Your task to perform on an android device: Go to location settings Image 0: 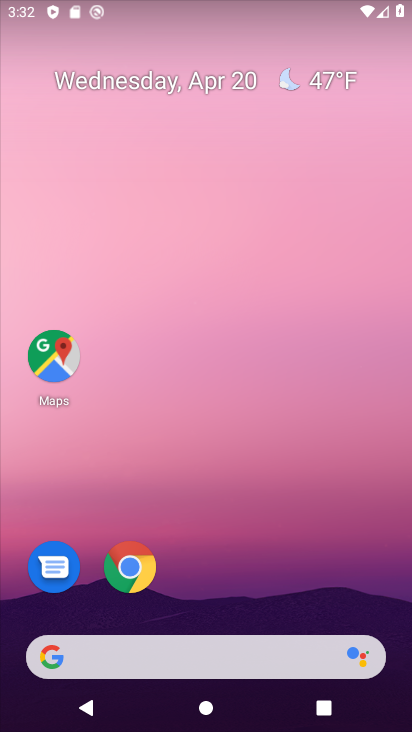
Step 0: drag from (275, 623) to (281, 1)
Your task to perform on an android device: Go to location settings Image 1: 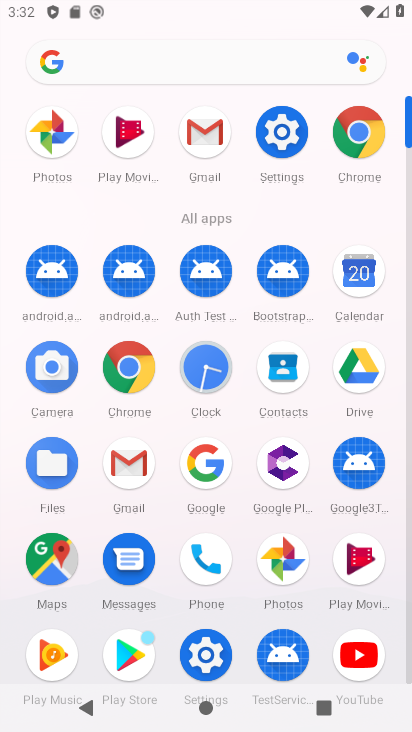
Step 1: click (300, 152)
Your task to perform on an android device: Go to location settings Image 2: 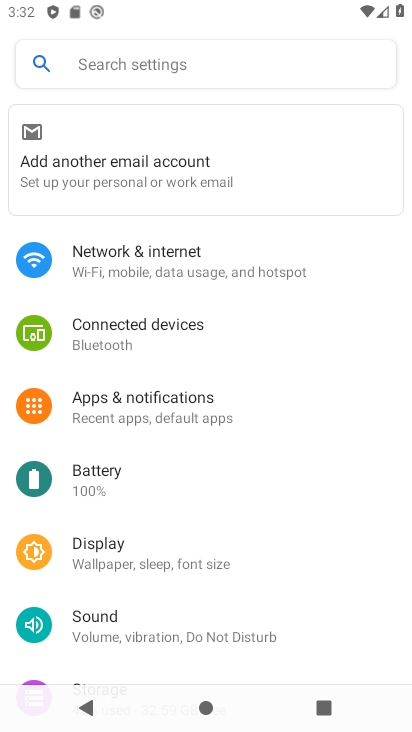
Step 2: drag from (55, 566) to (230, 31)
Your task to perform on an android device: Go to location settings Image 3: 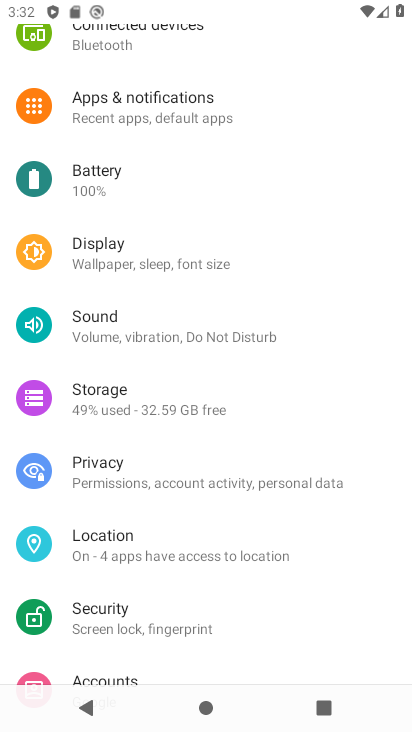
Step 3: click (138, 556)
Your task to perform on an android device: Go to location settings Image 4: 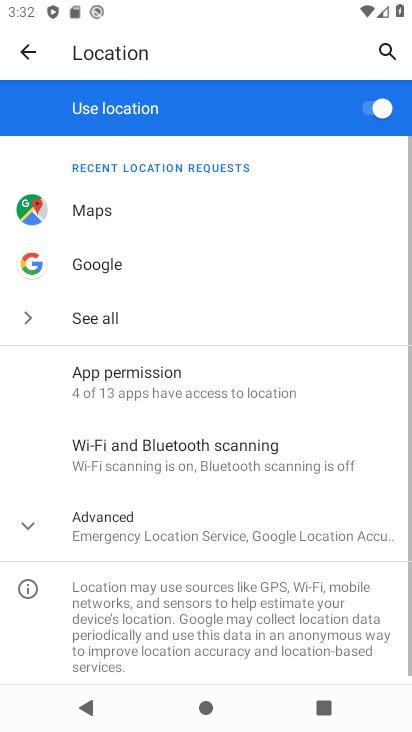
Step 4: task complete